Your task to perform on an android device: Go to accessibility settings Image 0: 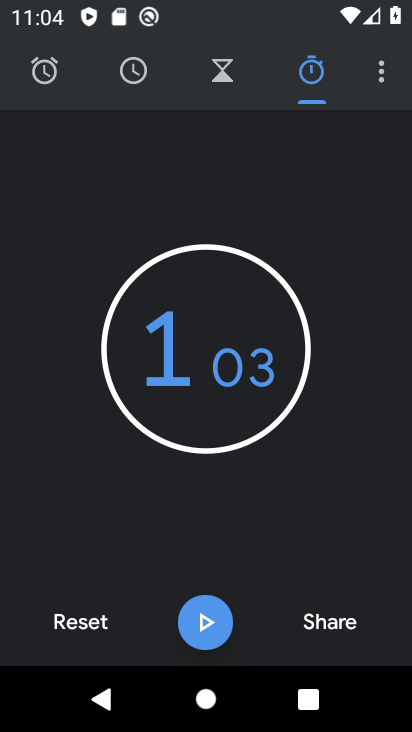
Step 0: press home button
Your task to perform on an android device: Go to accessibility settings Image 1: 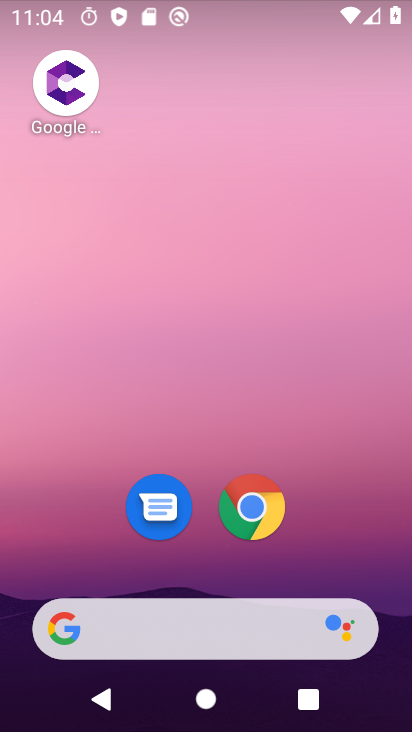
Step 1: drag from (389, 639) to (342, 46)
Your task to perform on an android device: Go to accessibility settings Image 2: 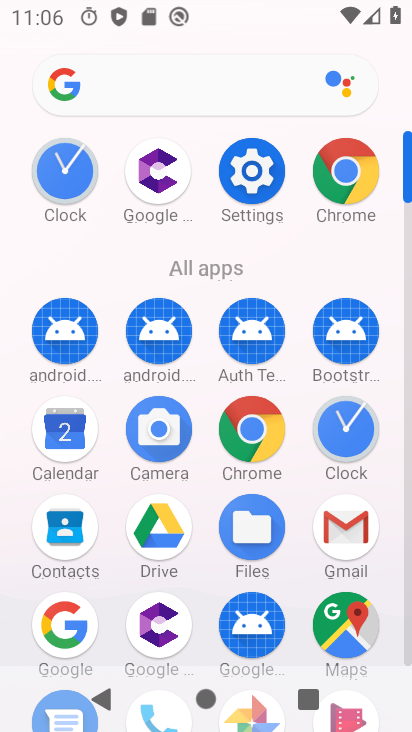
Step 2: click (260, 193)
Your task to perform on an android device: Go to accessibility settings Image 3: 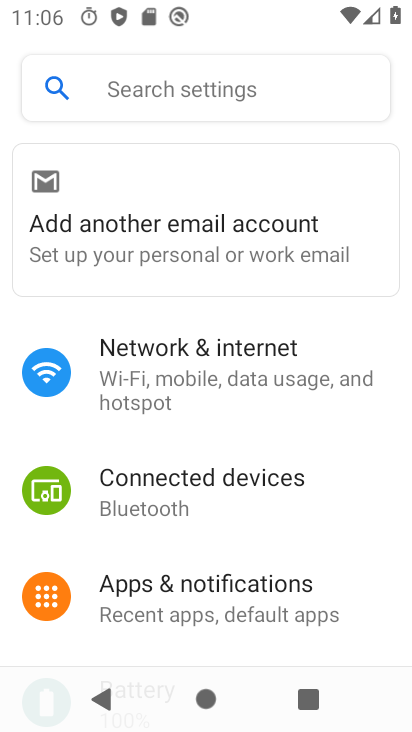
Step 3: drag from (202, 602) to (187, 60)
Your task to perform on an android device: Go to accessibility settings Image 4: 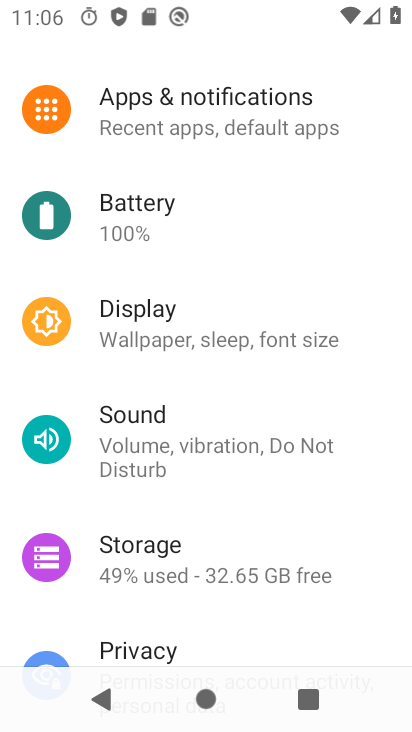
Step 4: drag from (195, 627) to (209, 78)
Your task to perform on an android device: Go to accessibility settings Image 5: 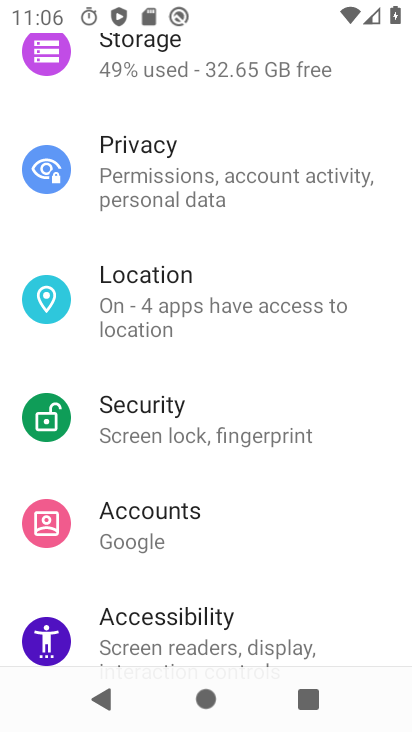
Step 5: click (230, 634)
Your task to perform on an android device: Go to accessibility settings Image 6: 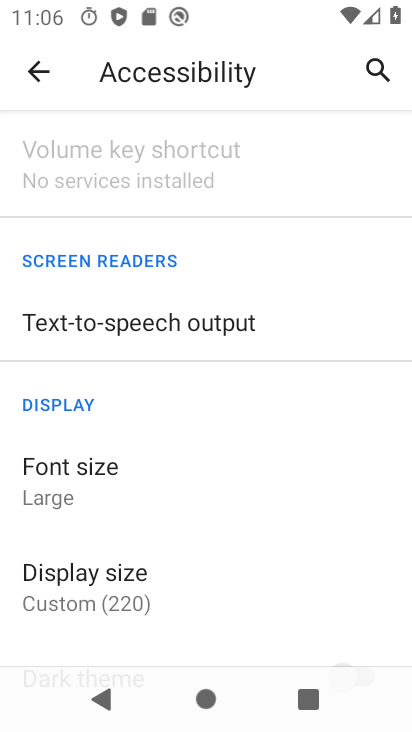
Step 6: task complete